Your task to perform on an android device: set an alarm Image 0: 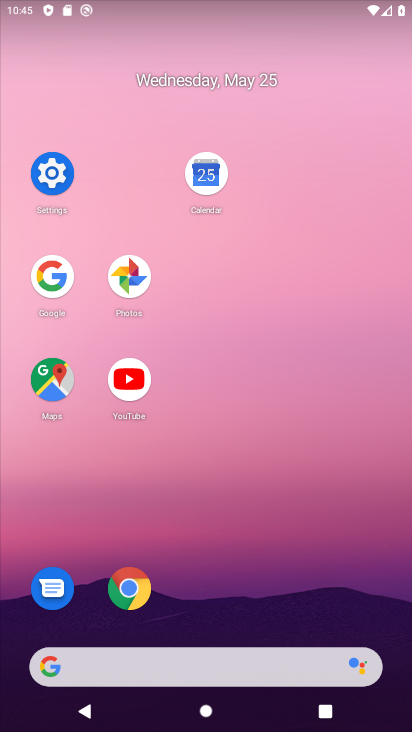
Step 0: drag from (247, 507) to (283, 186)
Your task to perform on an android device: set an alarm Image 1: 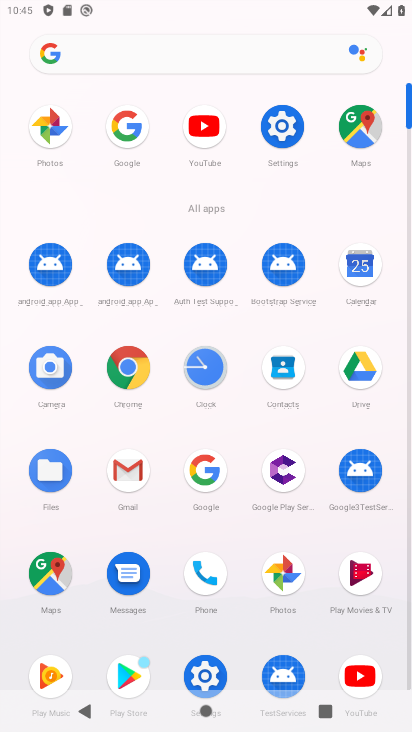
Step 1: drag from (234, 508) to (258, 291)
Your task to perform on an android device: set an alarm Image 2: 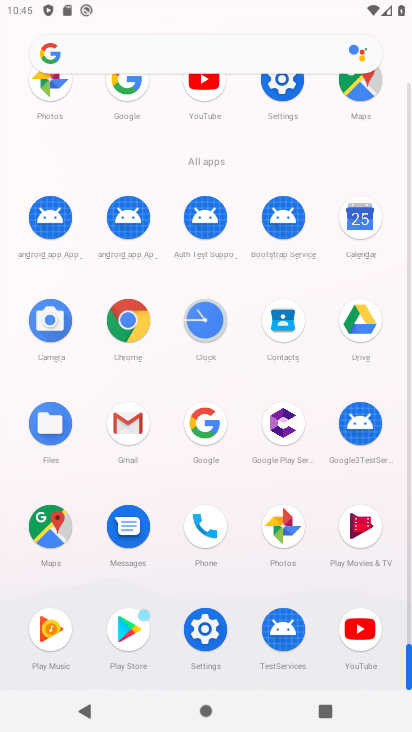
Step 2: drag from (251, 299) to (245, 407)
Your task to perform on an android device: set an alarm Image 3: 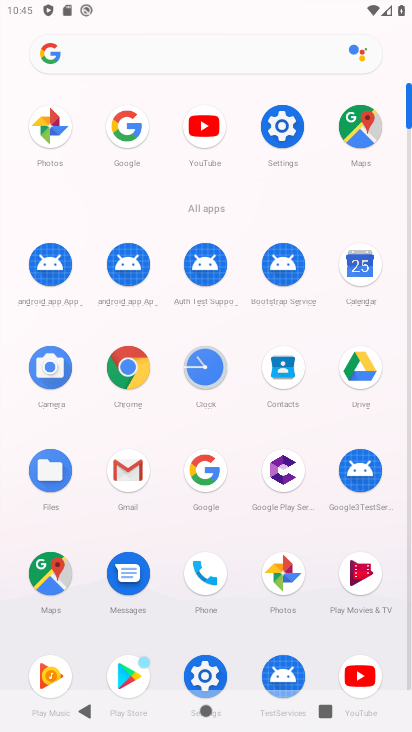
Step 3: drag from (205, 377) to (129, 187)
Your task to perform on an android device: set an alarm Image 4: 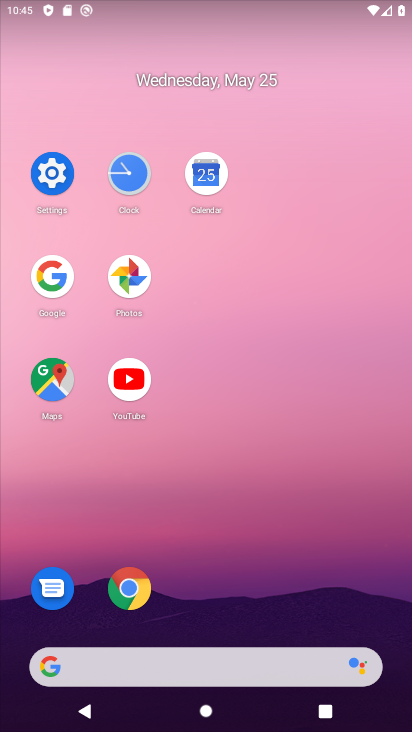
Step 4: click (123, 182)
Your task to perform on an android device: set an alarm Image 5: 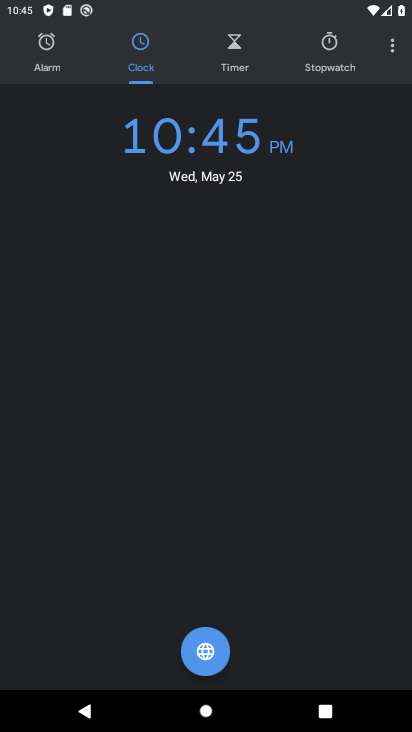
Step 5: click (57, 42)
Your task to perform on an android device: set an alarm Image 6: 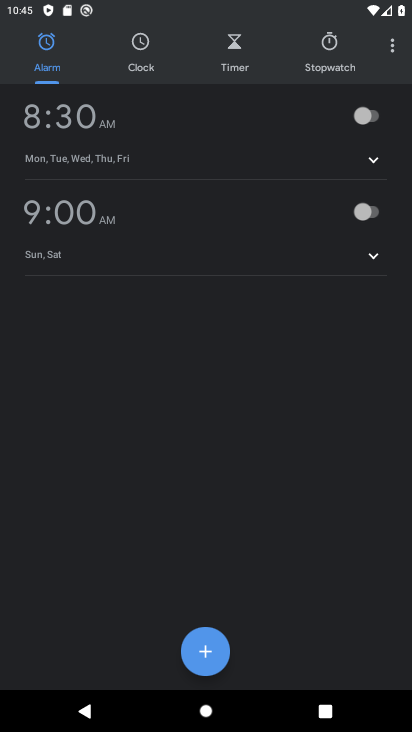
Step 6: click (371, 112)
Your task to perform on an android device: set an alarm Image 7: 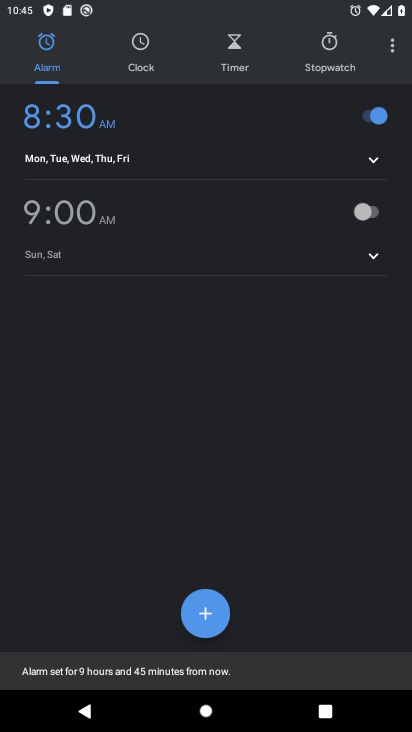
Step 7: task complete